Your task to perform on an android device: Toggle the flashlight Image 0: 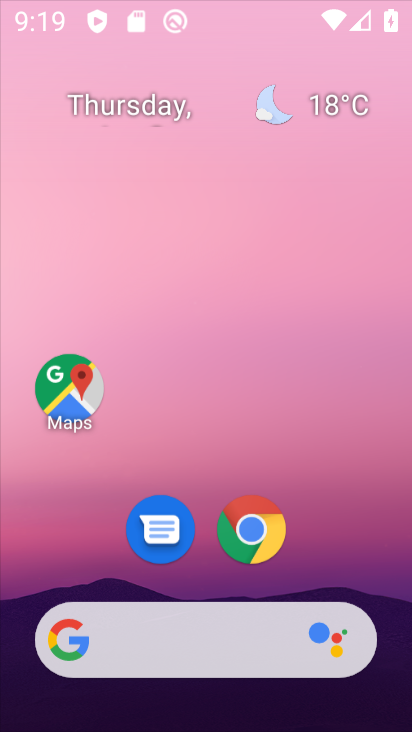
Step 0: drag from (395, 676) to (355, 146)
Your task to perform on an android device: Toggle the flashlight Image 1: 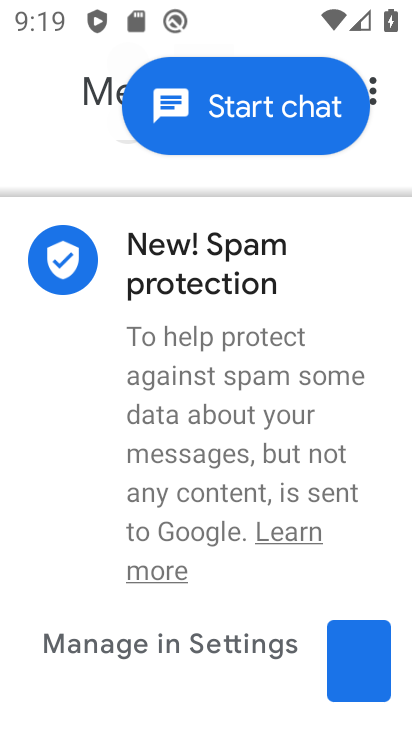
Step 1: press home button
Your task to perform on an android device: Toggle the flashlight Image 2: 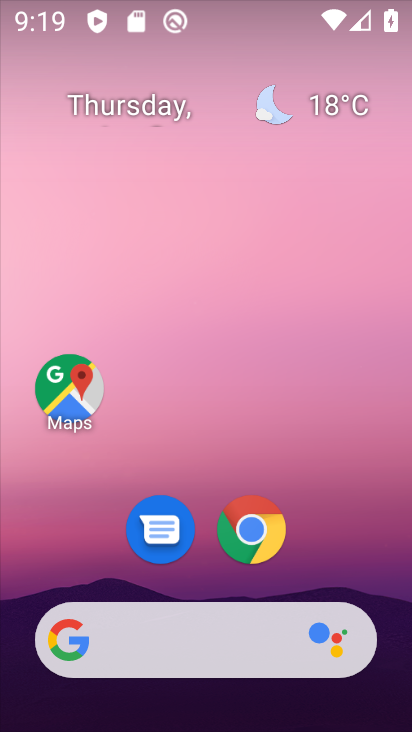
Step 2: drag from (390, 452) to (348, 128)
Your task to perform on an android device: Toggle the flashlight Image 3: 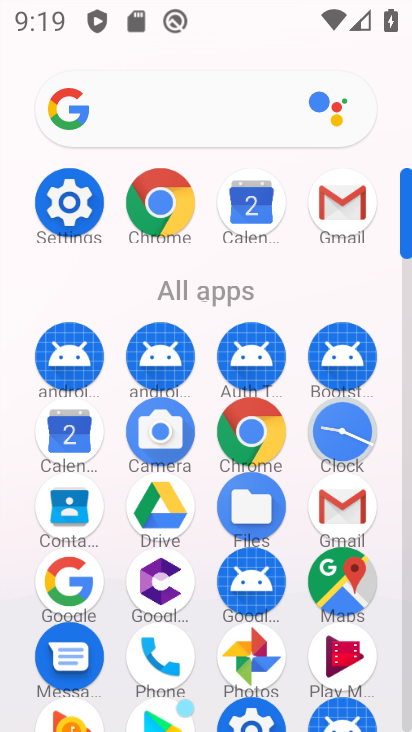
Step 3: click (83, 216)
Your task to perform on an android device: Toggle the flashlight Image 4: 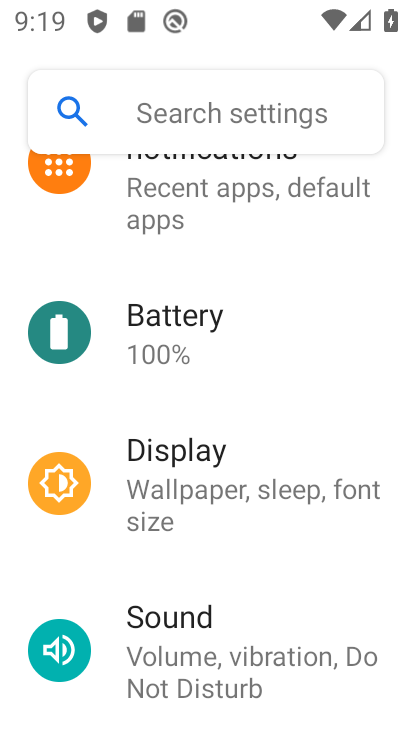
Step 4: click (153, 280)
Your task to perform on an android device: Toggle the flashlight Image 5: 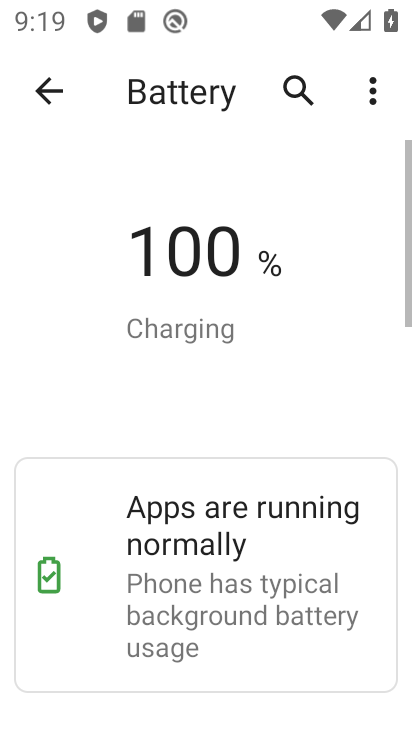
Step 5: click (71, 85)
Your task to perform on an android device: Toggle the flashlight Image 6: 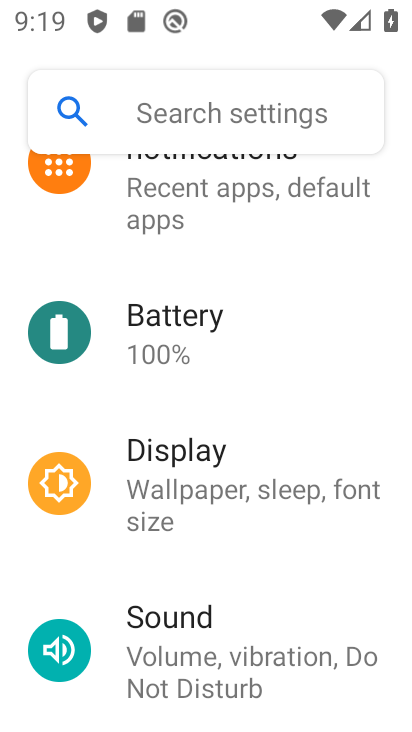
Step 6: click (178, 267)
Your task to perform on an android device: Toggle the flashlight Image 7: 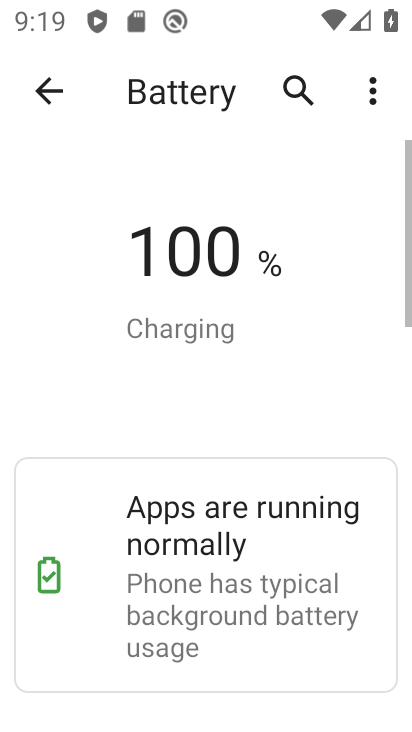
Step 7: click (29, 90)
Your task to perform on an android device: Toggle the flashlight Image 8: 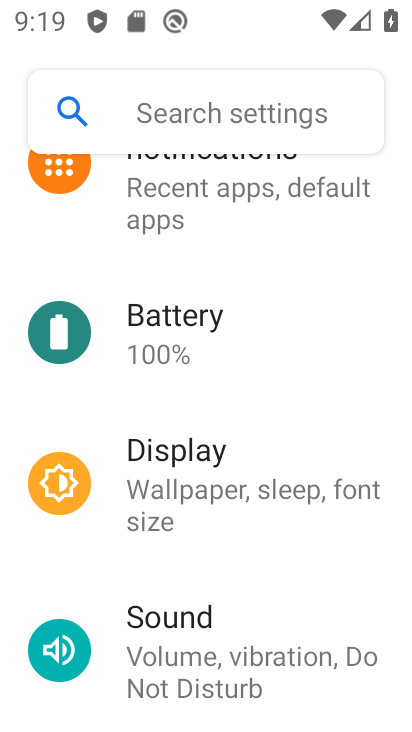
Step 8: click (162, 445)
Your task to perform on an android device: Toggle the flashlight Image 9: 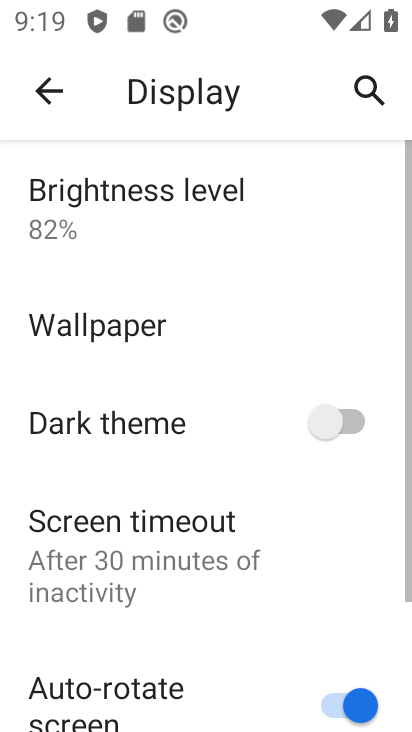
Step 9: task complete